Your task to perform on an android device: turn on airplane mode Image 0: 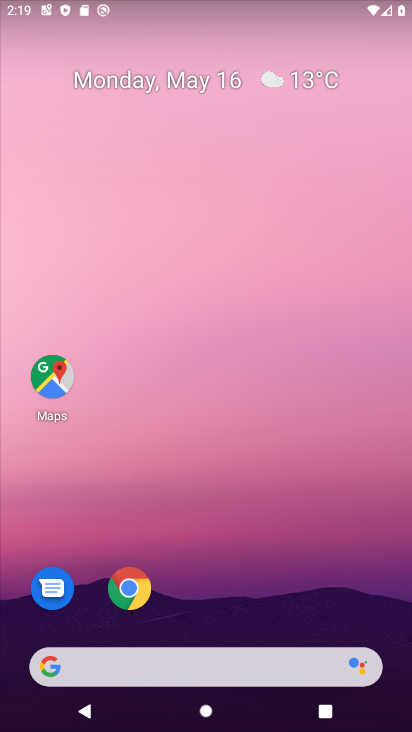
Step 0: drag from (226, 658) to (218, 7)
Your task to perform on an android device: turn on airplane mode Image 1: 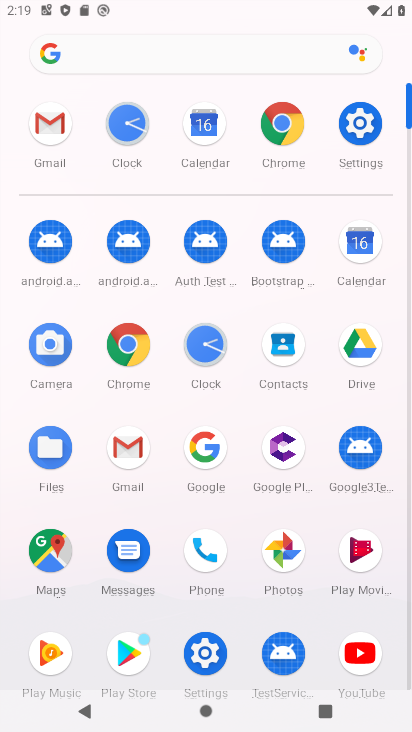
Step 1: click (364, 126)
Your task to perform on an android device: turn on airplane mode Image 2: 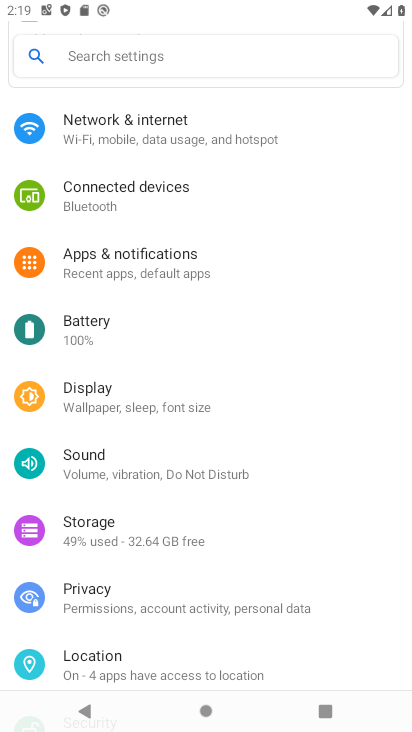
Step 2: click (234, 130)
Your task to perform on an android device: turn on airplane mode Image 3: 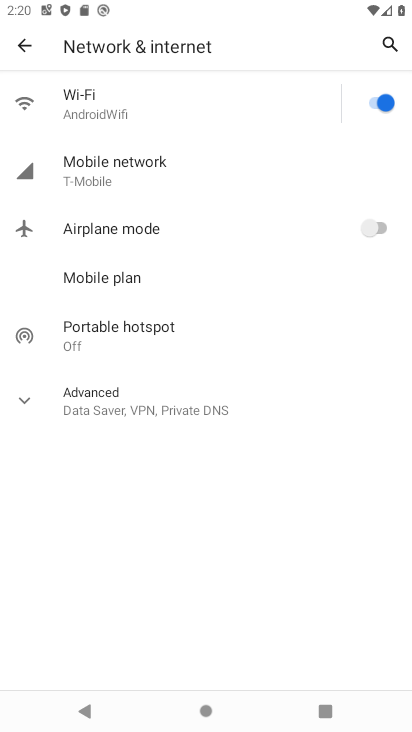
Step 3: click (379, 228)
Your task to perform on an android device: turn on airplane mode Image 4: 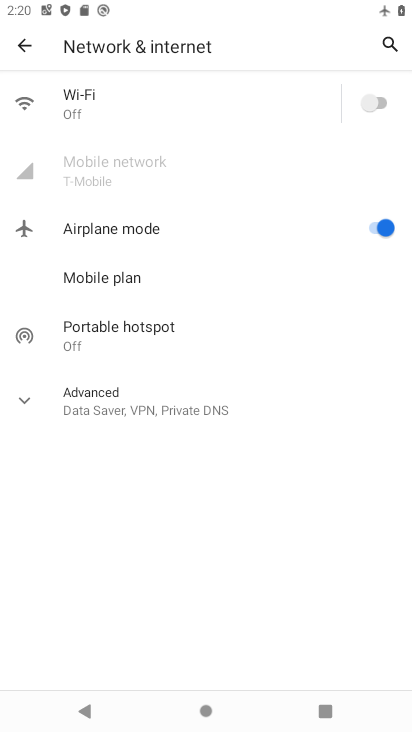
Step 4: task complete